Your task to perform on an android device: clear all cookies in the chrome app Image 0: 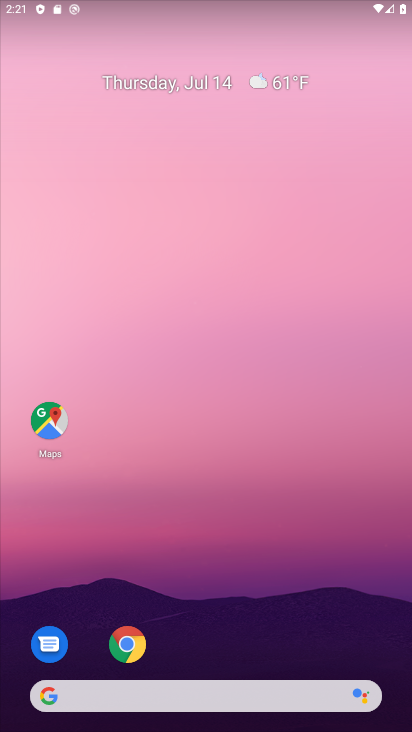
Step 0: click (142, 642)
Your task to perform on an android device: clear all cookies in the chrome app Image 1: 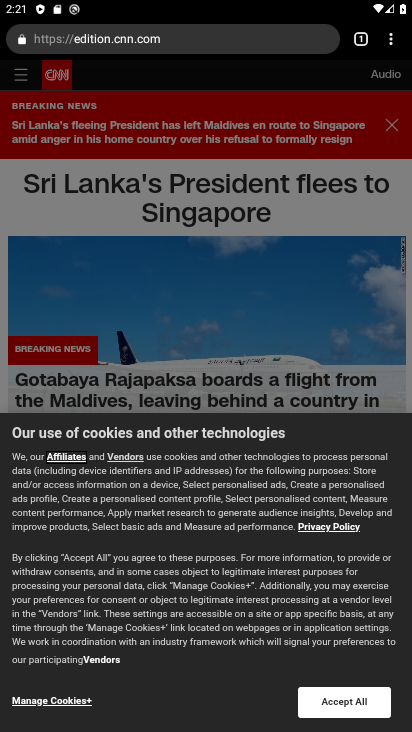
Step 1: click (395, 43)
Your task to perform on an android device: clear all cookies in the chrome app Image 2: 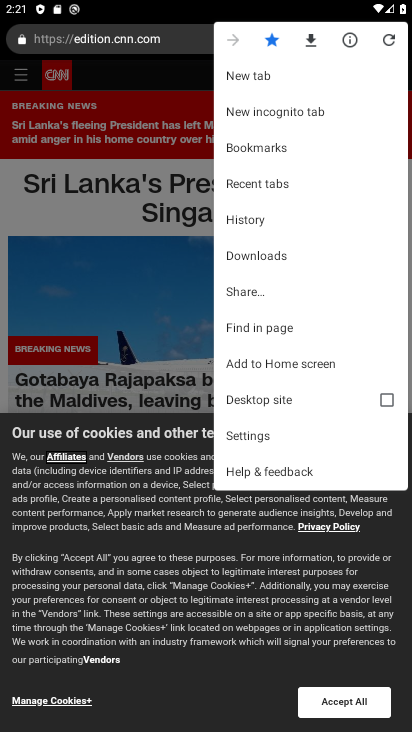
Step 2: click (268, 434)
Your task to perform on an android device: clear all cookies in the chrome app Image 3: 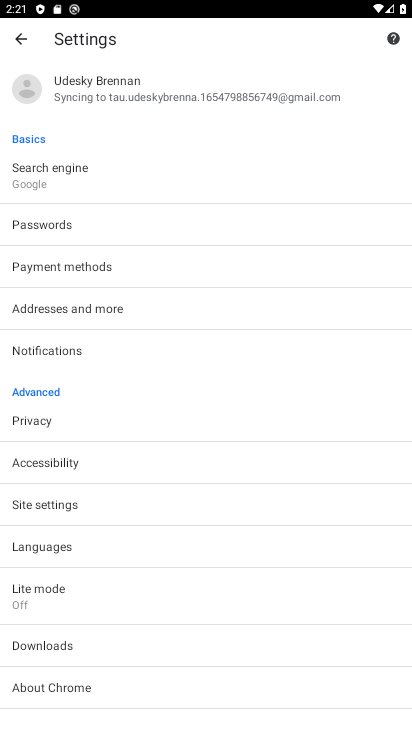
Step 3: click (69, 418)
Your task to perform on an android device: clear all cookies in the chrome app Image 4: 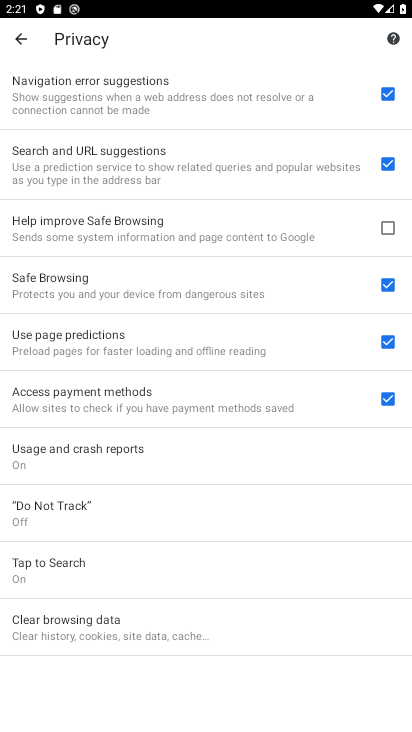
Step 4: click (141, 634)
Your task to perform on an android device: clear all cookies in the chrome app Image 5: 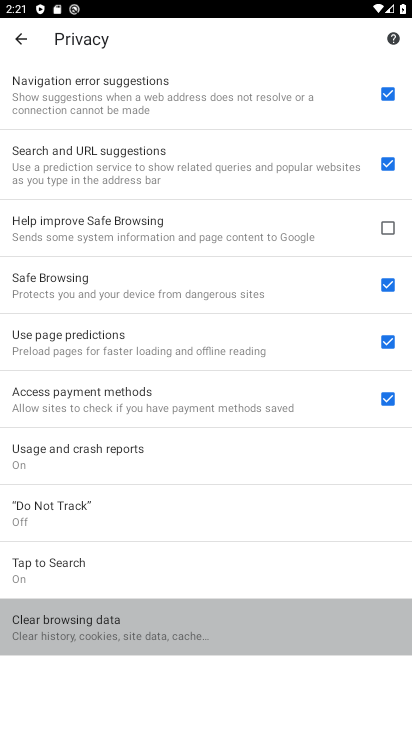
Step 5: click (141, 634)
Your task to perform on an android device: clear all cookies in the chrome app Image 6: 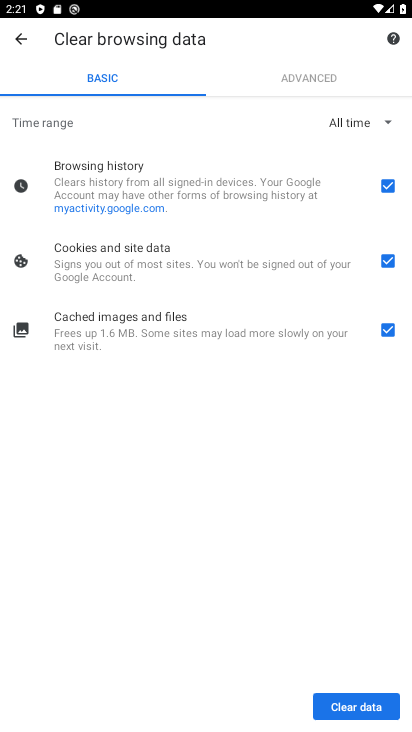
Step 6: click (389, 330)
Your task to perform on an android device: clear all cookies in the chrome app Image 7: 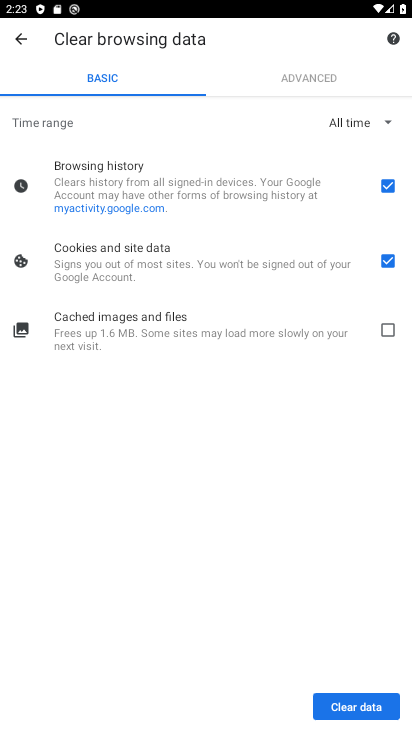
Step 7: click (396, 181)
Your task to perform on an android device: clear all cookies in the chrome app Image 8: 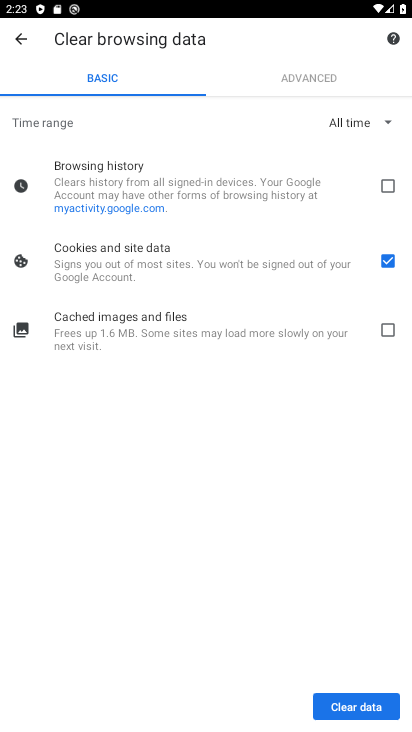
Step 8: click (354, 702)
Your task to perform on an android device: clear all cookies in the chrome app Image 9: 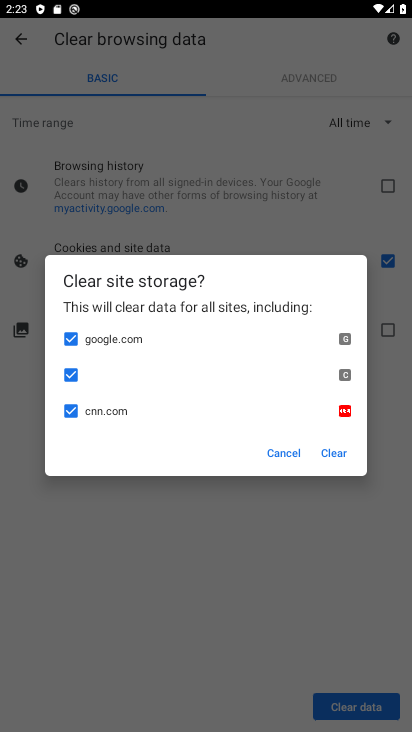
Step 9: click (324, 452)
Your task to perform on an android device: clear all cookies in the chrome app Image 10: 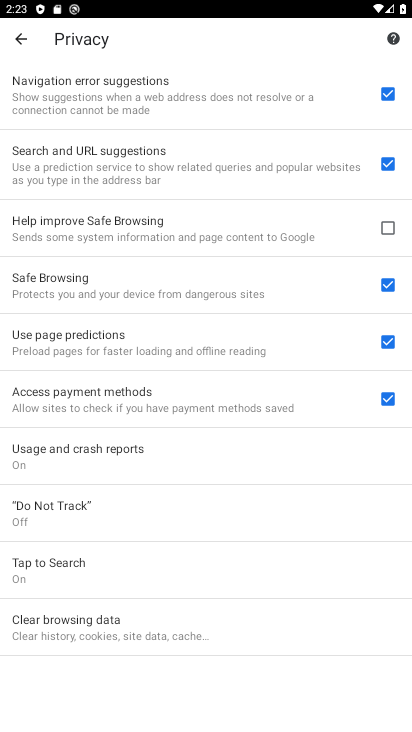
Step 10: task complete